Your task to perform on an android device: When is my next appointment? Image 0: 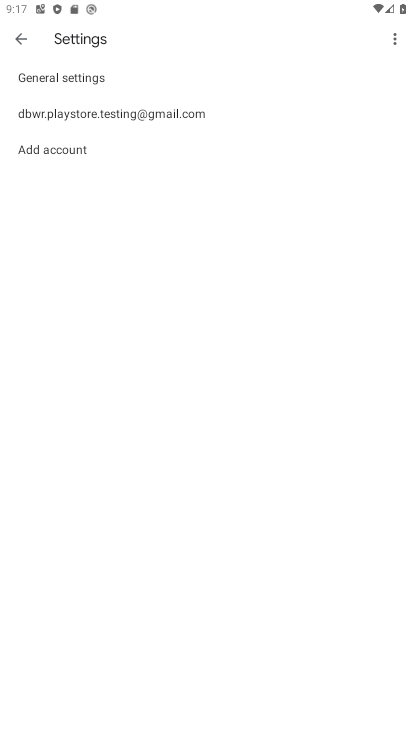
Step 0: press home button
Your task to perform on an android device: When is my next appointment? Image 1: 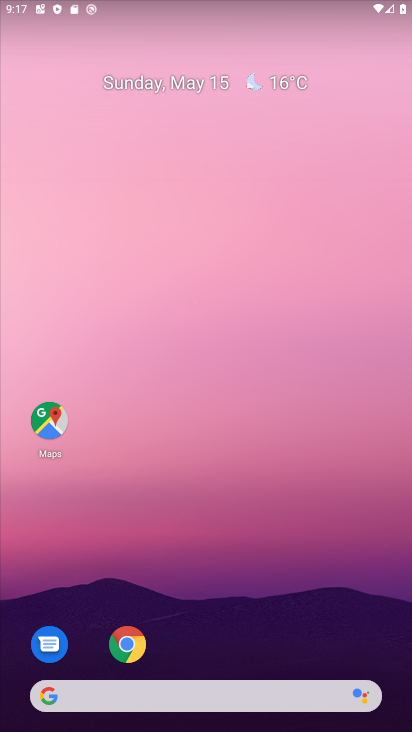
Step 1: drag from (196, 680) to (217, 214)
Your task to perform on an android device: When is my next appointment? Image 2: 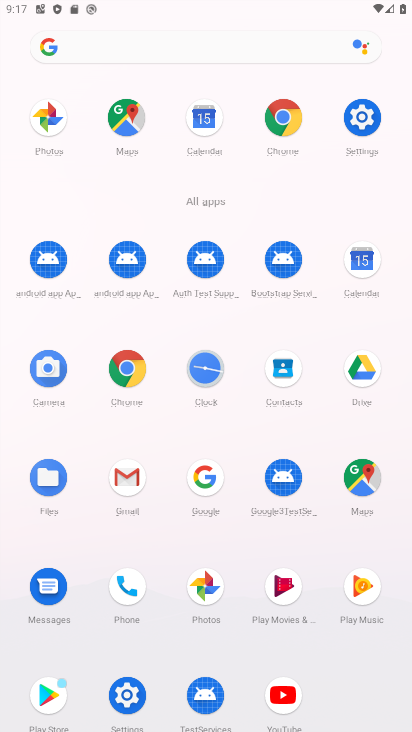
Step 2: click (368, 259)
Your task to perform on an android device: When is my next appointment? Image 3: 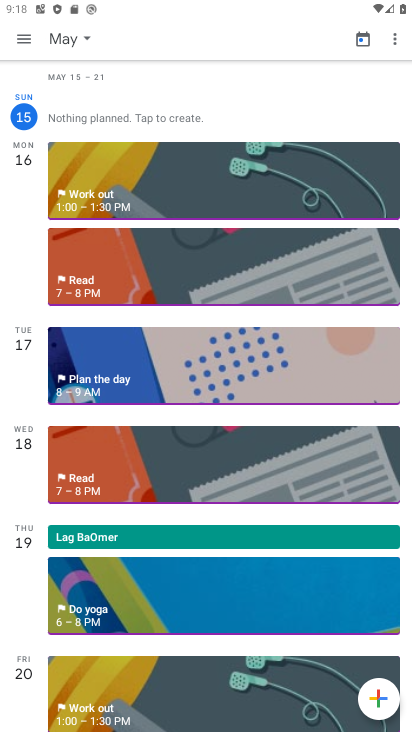
Step 3: click (118, 184)
Your task to perform on an android device: When is my next appointment? Image 4: 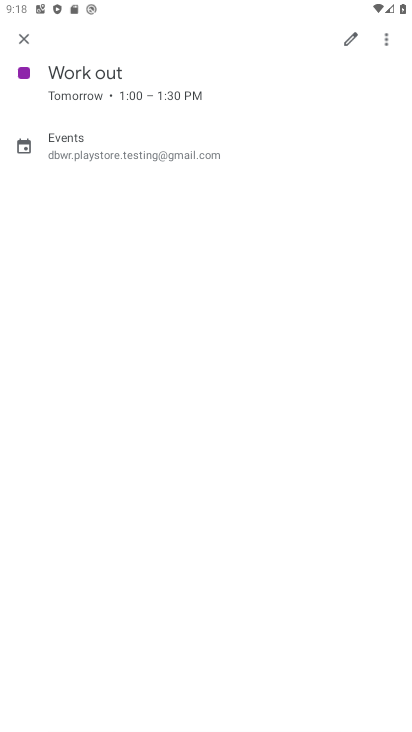
Step 4: task complete